Your task to perform on an android device: Open sound settings Image 0: 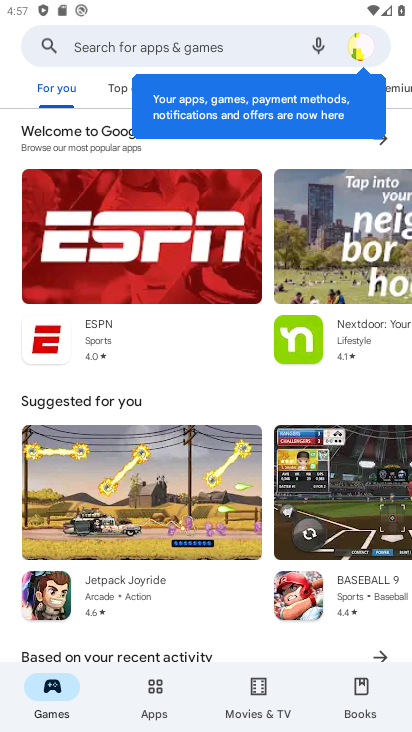
Step 0: press home button
Your task to perform on an android device: Open sound settings Image 1: 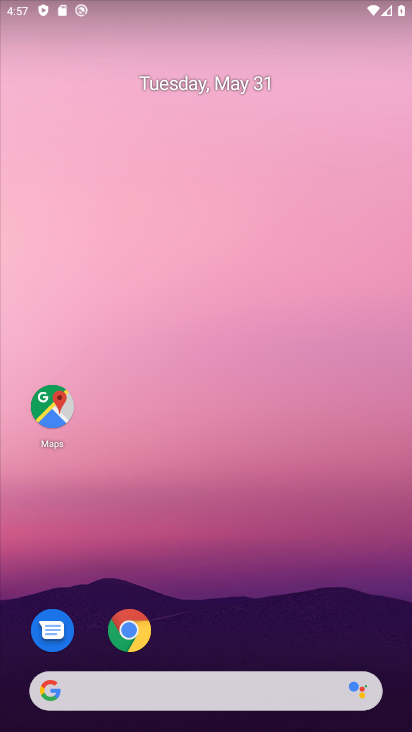
Step 1: drag from (249, 576) to (170, 64)
Your task to perform on an android device: Open sound settings Image 2: 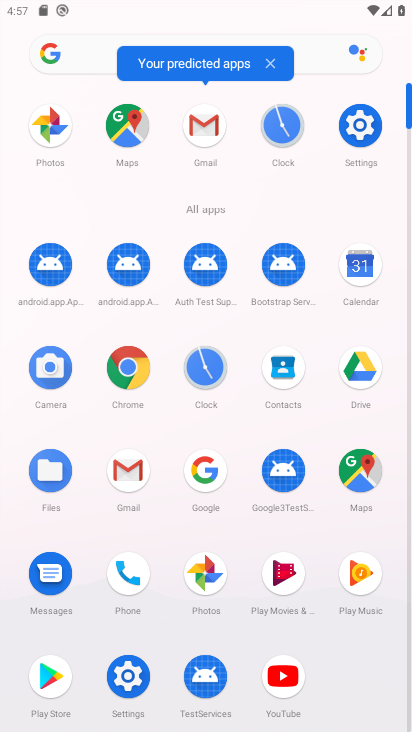
Step 2: click (357, 146)
Your task to perform on an android device: Open sound settings Image 3: 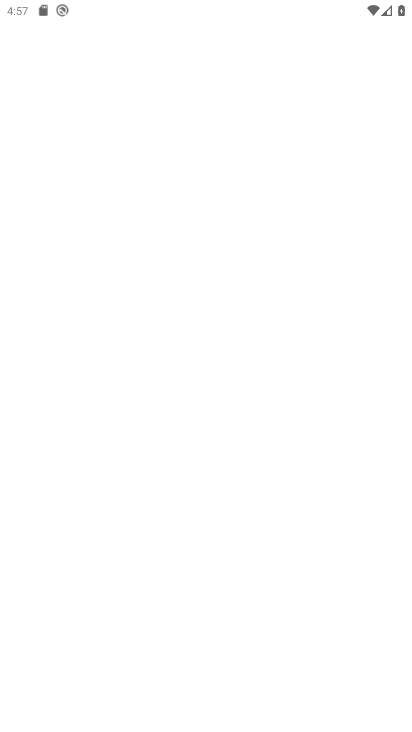
Step 3: click (358, 127)
Your task to perform on an android device: Open sound settings Image 4: 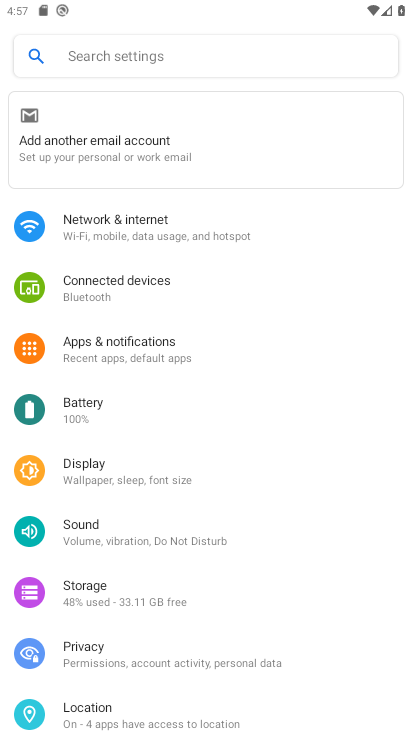
Step 4: click (128, 523)
Your task to perform on an android device: Open sound settings Image 5: 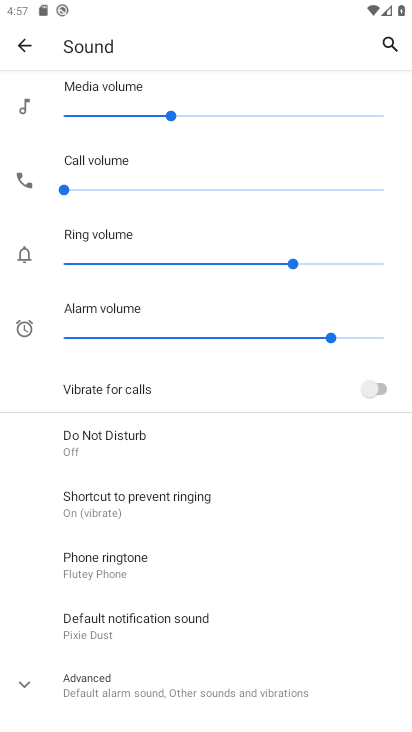
Step 5: task complete